Your task to perform on an android device: open app "DoorDash - Food Delivery" Image 0: 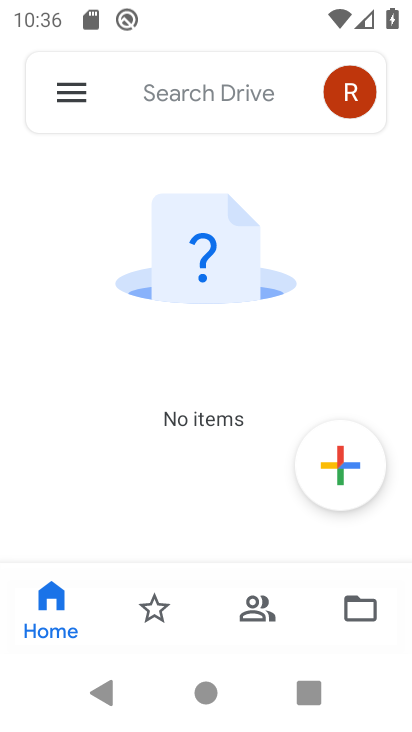
Step 0: press home button
Your task to perform on an android device: open app "DoorDash - Food Delivery" Image 1: 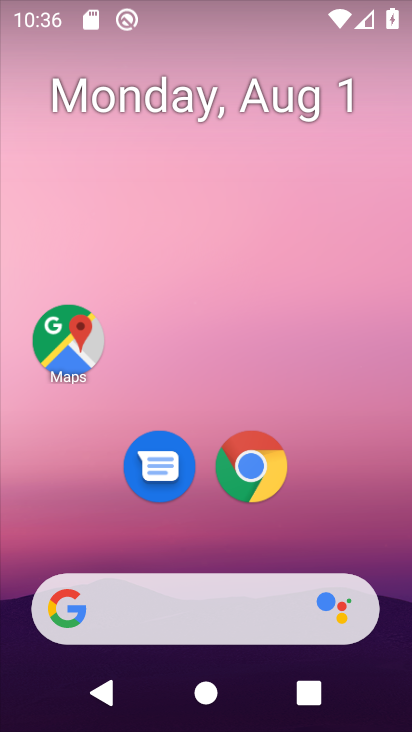
Step 1: drag from (227, 388) to (238, 132)
Your task to perform on an android device: open app "DoorDash - Food Delivery" Image 2: 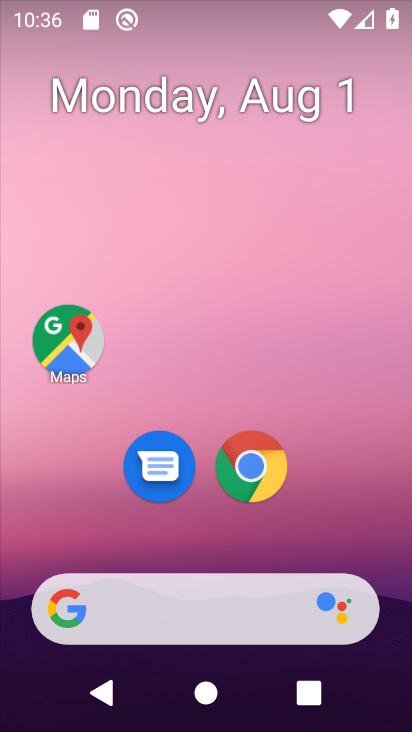
Step 2: drag from (240, 725) to (258, 72)
Your task to perform on an android device: open app "DoorDash - Food Delivery" Image 3: 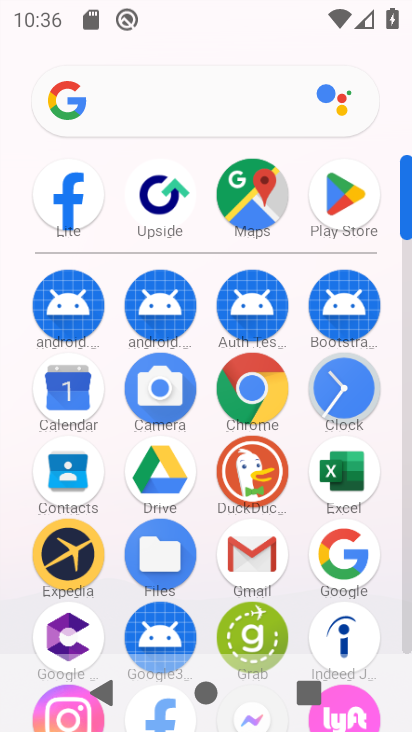
Step 3: click (344, 205)
Your task to perform on an android device: open app "DoorDash - Food Delivery" Image 4: 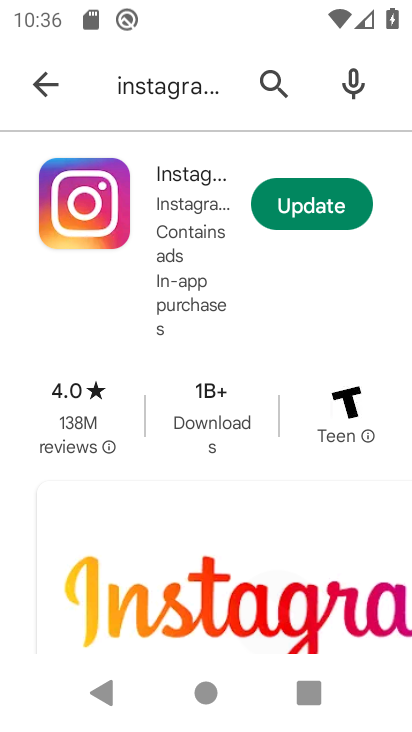
Step 4: click (272, 83)
Your task to perform on an android device: open app "DoorDash - Food Delivery" Image 5: 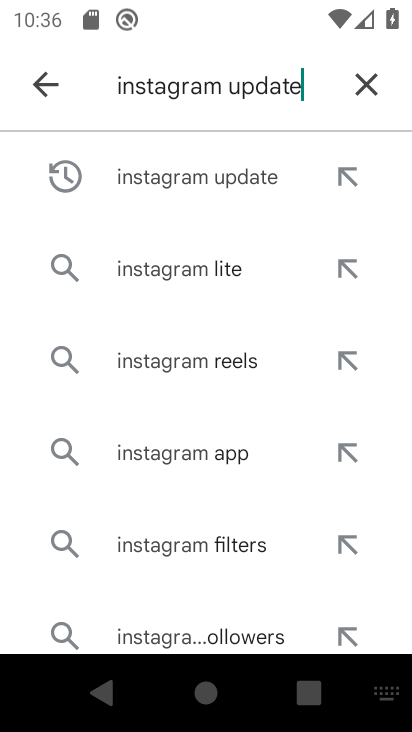
Step 5: click (353, 72)
Your task to perform on an android device: open app "DoorDash - Food Delivery" Image 6: 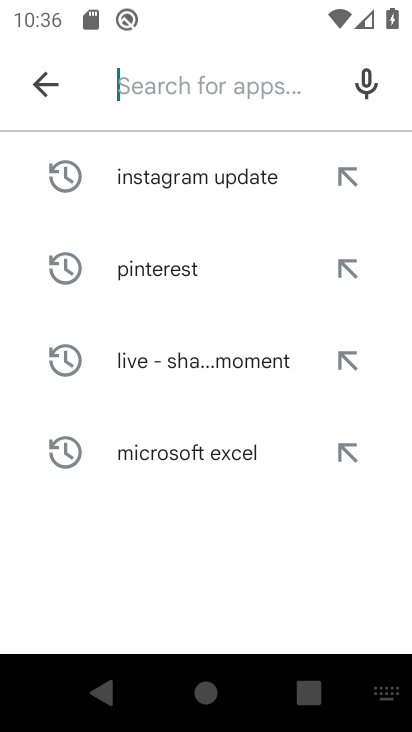
Step 6: type "DoorDash - Food Delivery"
Your task to perform on an android device: open app "DoorDash - Food Delivery" Image 7: 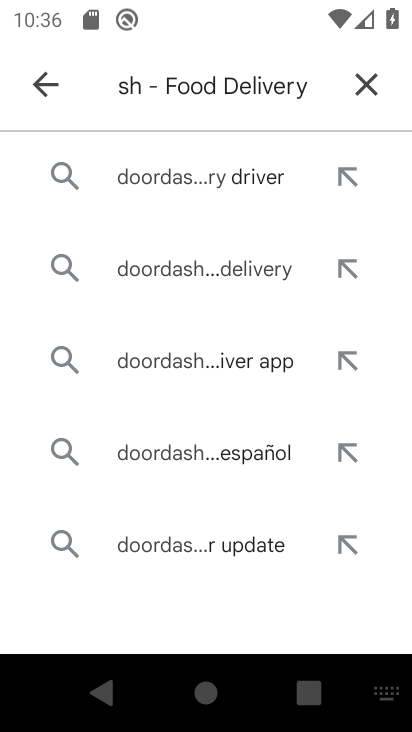
Step 7: click (245, 274)
Your task to perform on an android device: open app "DoorDash - Food Delivery" Image 8: 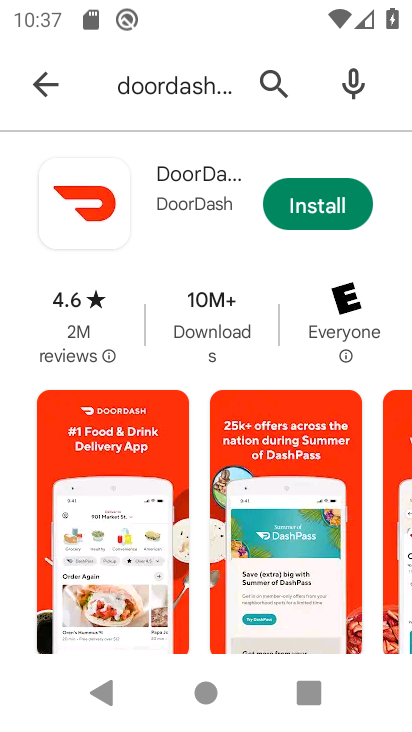
Step 8: task complete